Your task to perform on an android device: turn off airplane mode Image 0: 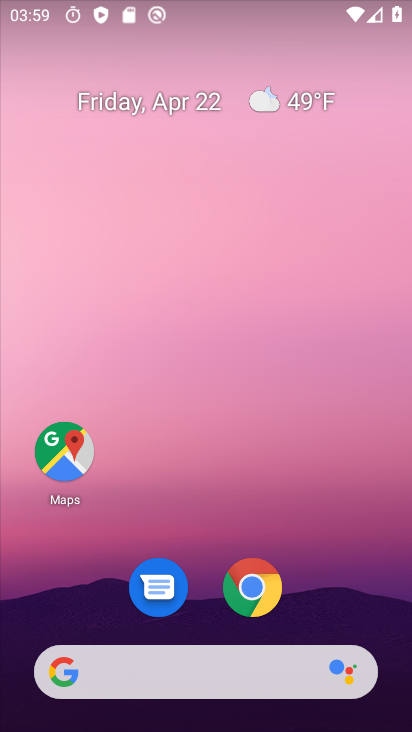
Step 0: drag from (361, 618) to (407, 31)
Your task to perform on an android device: turn off airplane mode Image 1: 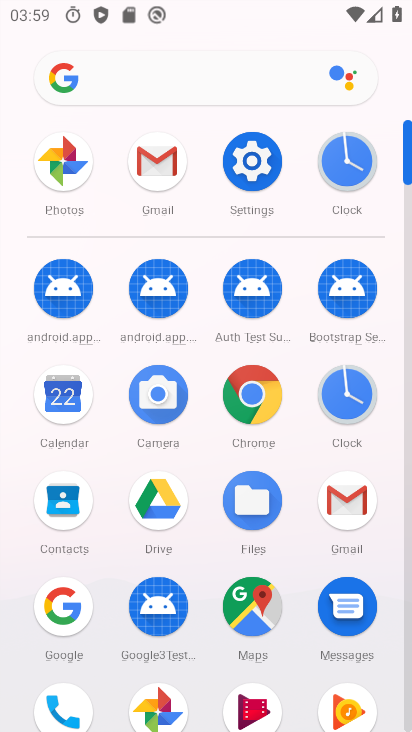
Step 1: click (246, 163)
Your task to perform on an android device: turn off airplane mode Image 2: 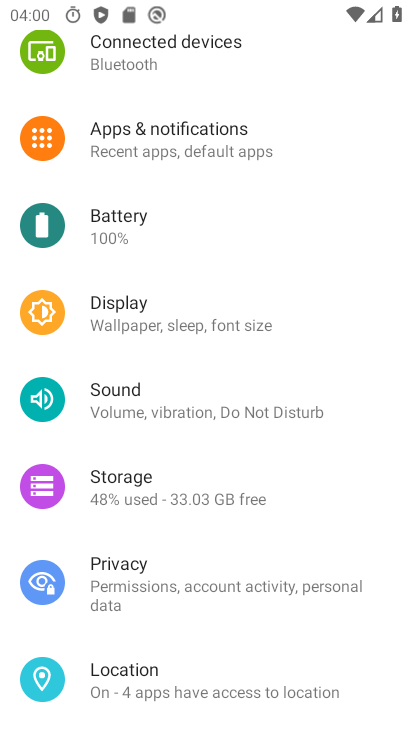
Step 2: drag from (279, 138) to (286, 470)
Your task to perform on an android device: turn off airplane mode Image 3: 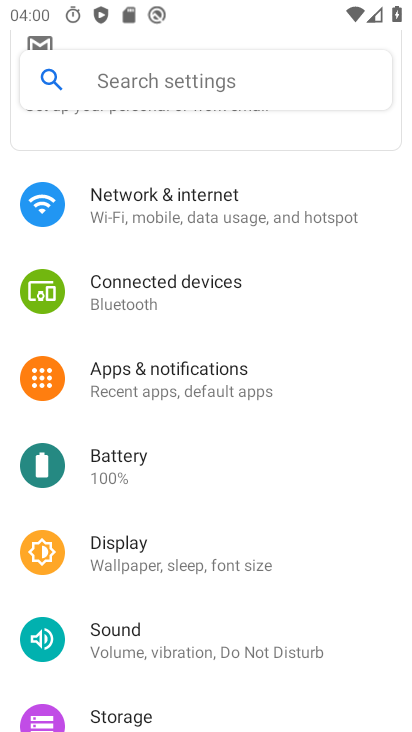
Step 3: click (230, 206)
Your task to perform on an android device: turn off airplane mode Image 4: 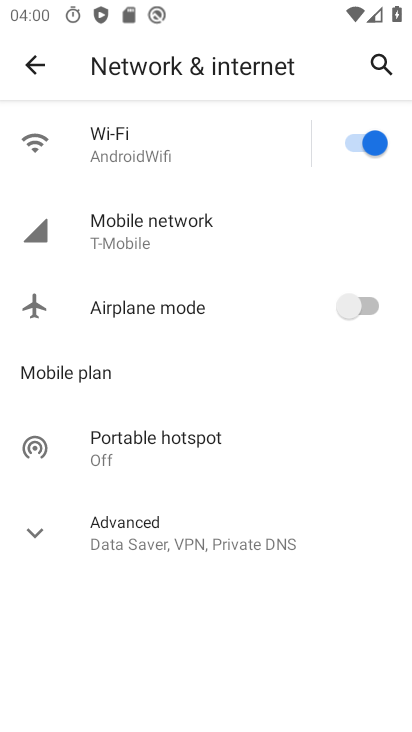
Step 4: task complete